Your task to perform on an android device: Open the stopwatch Image 0: 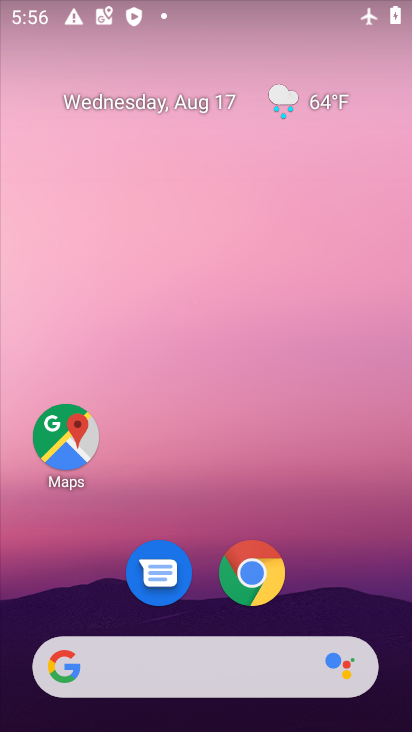
Step 0: drag from (378, 626) to (298, 247)
Your task to perform on an android device: Open the stopwatch Image 1: 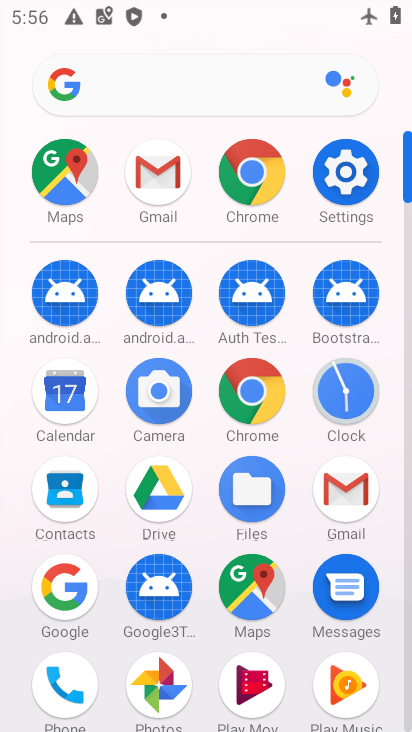
Step 1: click (347, 403)
Your task to perform on an android device: Open the stopwatch Image 2: 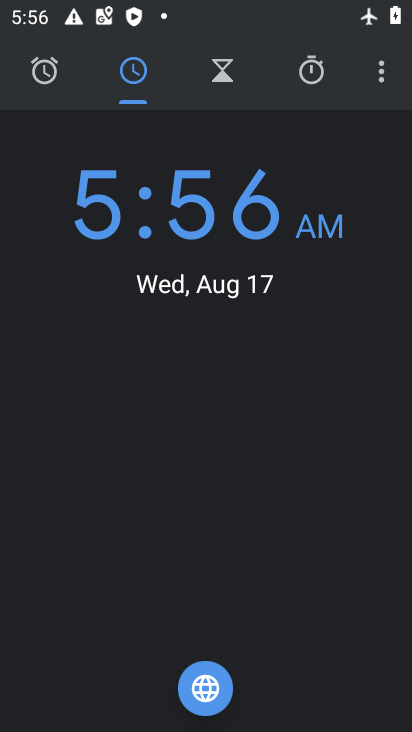
Step 2: click (322, 72)
Your task to perform on an android device: Open the stopwatch Image 3: 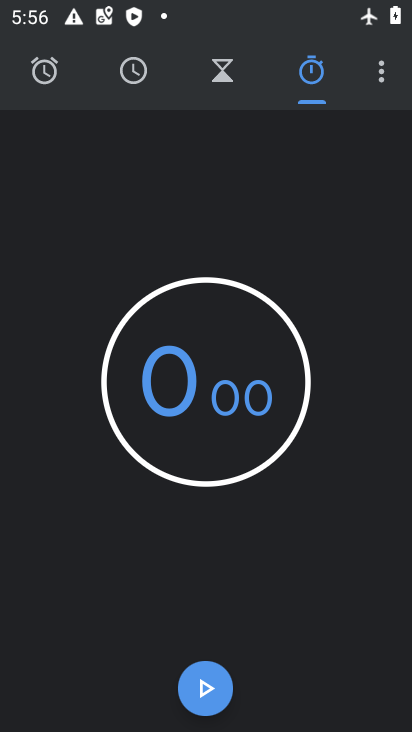
Step 3: task complete